Your task to perform on an android device: stop showing notifications on the lock screen Image 0: 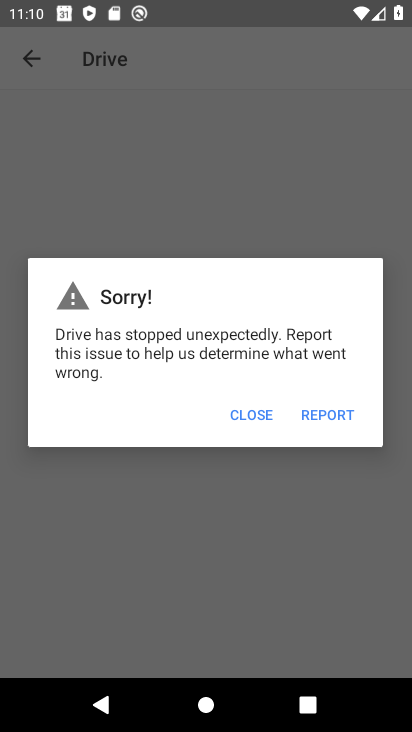
Step 0: press home button
Your task to perform on an android device: stop showing notifications on the lock screen Image 1: 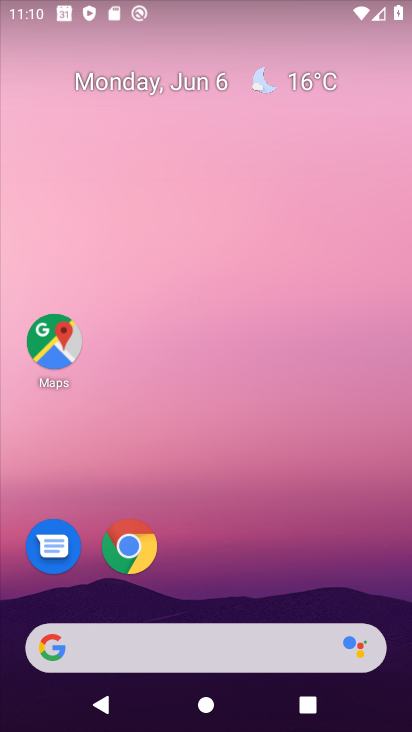
Step 1: drag from (295, 561) to (225, 28)
Your task to perform on an android device: stop showing notifications on the lock screen Image 2: 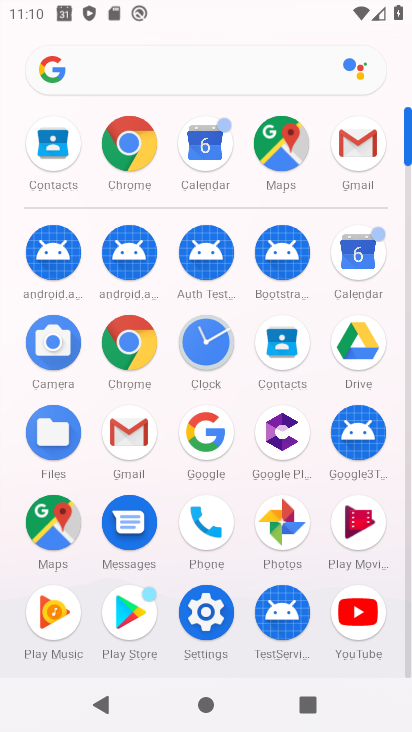
Step 2: click (216, 346)
Your task to perform on an android device: stop showing notifications on the lock screen Image 3: 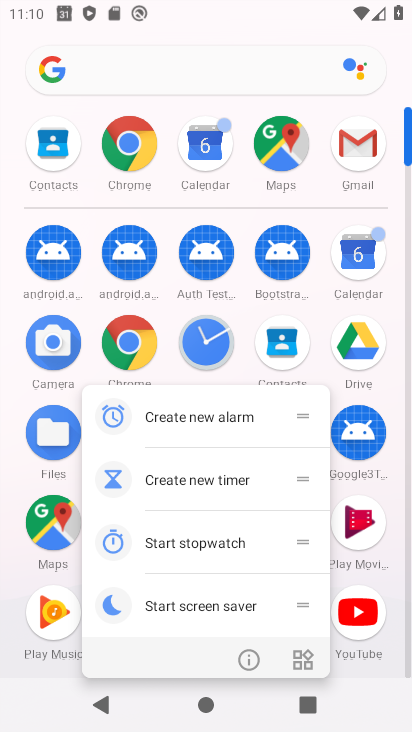
Step 3: click (371, 494)
Your task to perform on an android device: stop showing notifications on the lock screen Image 4: 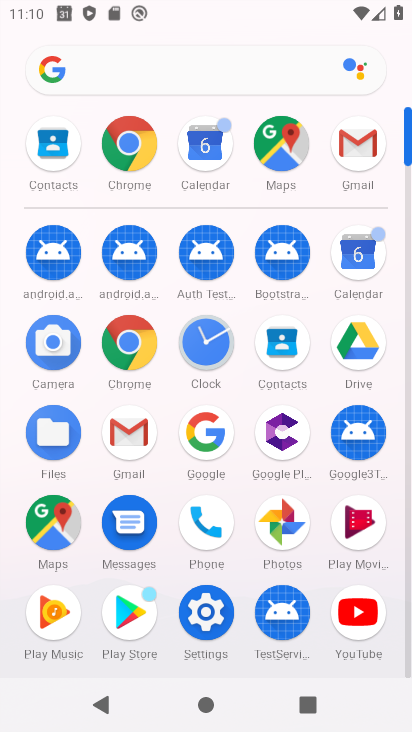
Step 4: click (208, 606)
Your task to perform on an android device: stop showing notifications on the lock screen Image 5: 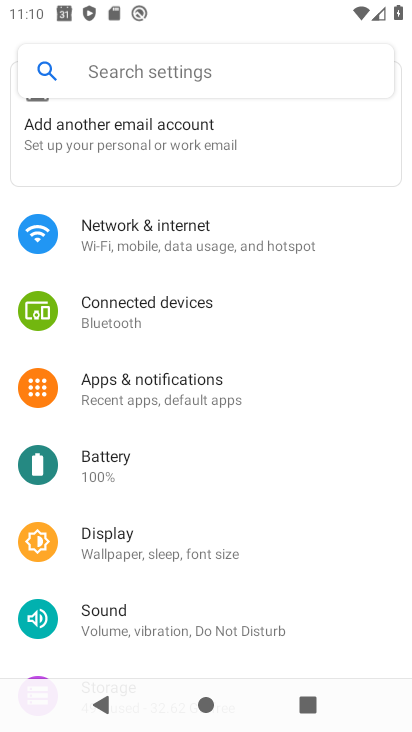
Step 5: click (195, 402)
Your task to perform on an android device: stop showing notifications on the lock screen Image 6: 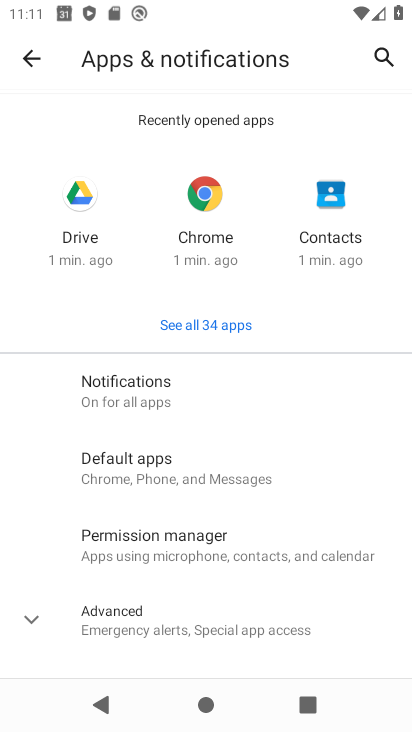
Step 6: click (164, 404)
Your task to perform on an android device: stop showing notifications on the lock screen Image 7: 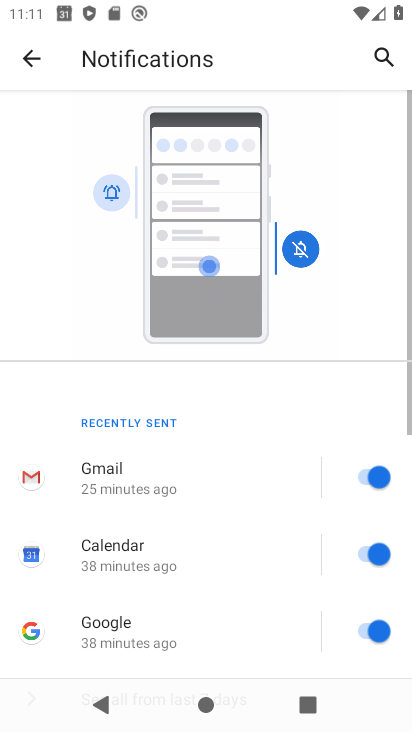
Step 7: drag from (192, 605) to (262, 9)
Your task to perform on an android device: stop showing notifications on the lock screen Image 8: 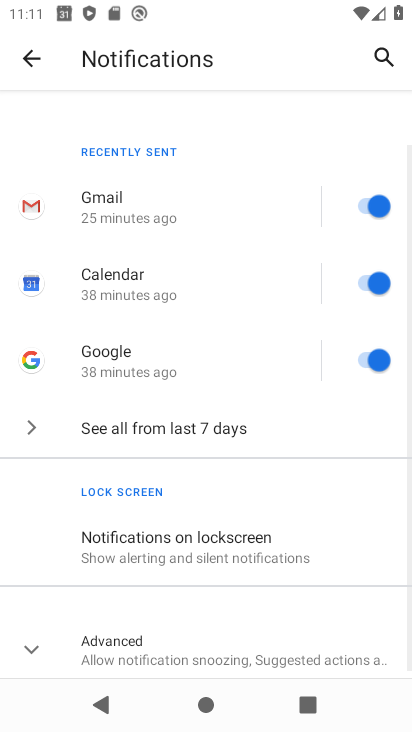
Step 8: click (177, 543)
Your task to perform on an android device: stop showing notifications on the lock screen Image 9: 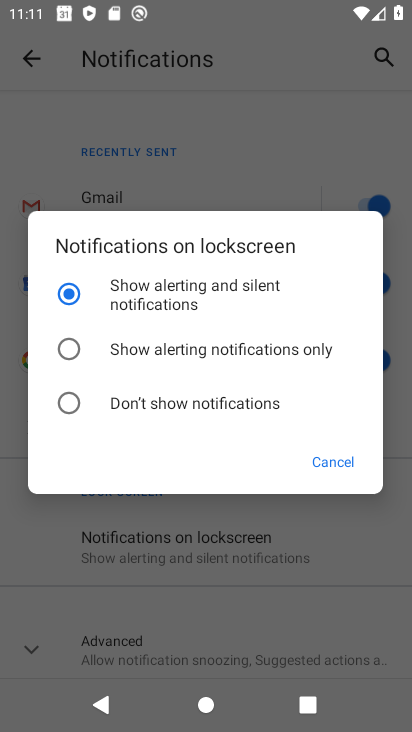
Step 9: click (192, 400)
Your task to perform on an android device: stop showing notifications on the lock screen Image 10: 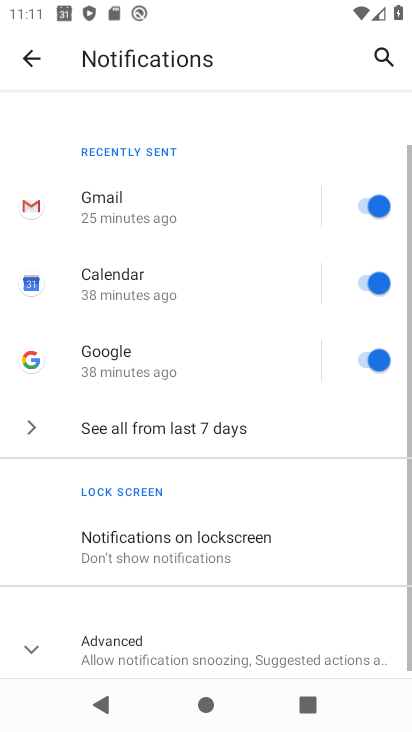
Step 10: task complete